Your task to perform on an android device: install app "WhatsApp Messenger" Image 0: 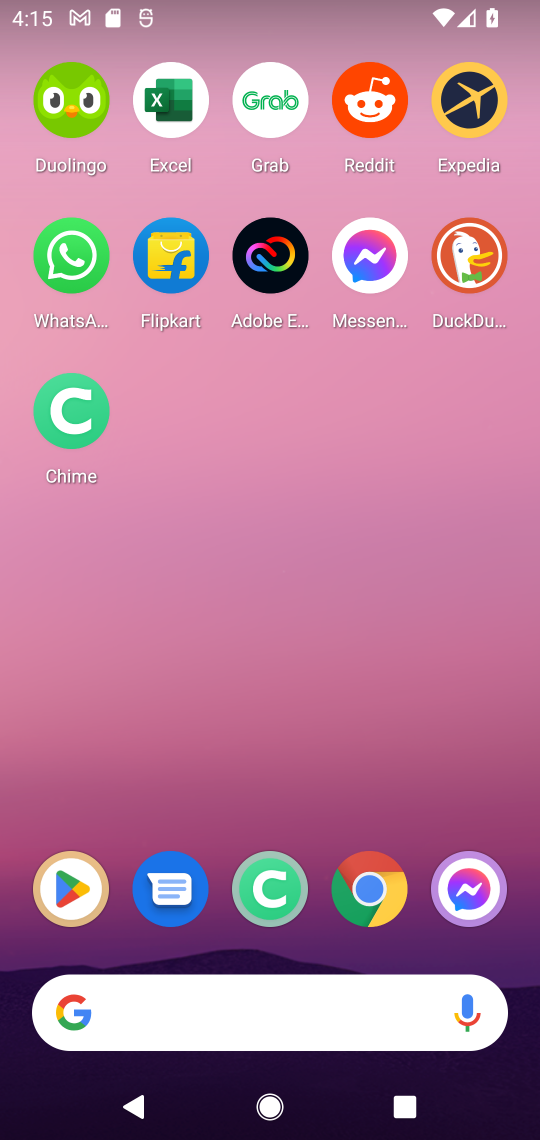
Step 0: press home button
Your task to perform on an android device: install app "WhatsApp Messenger" Image 1: 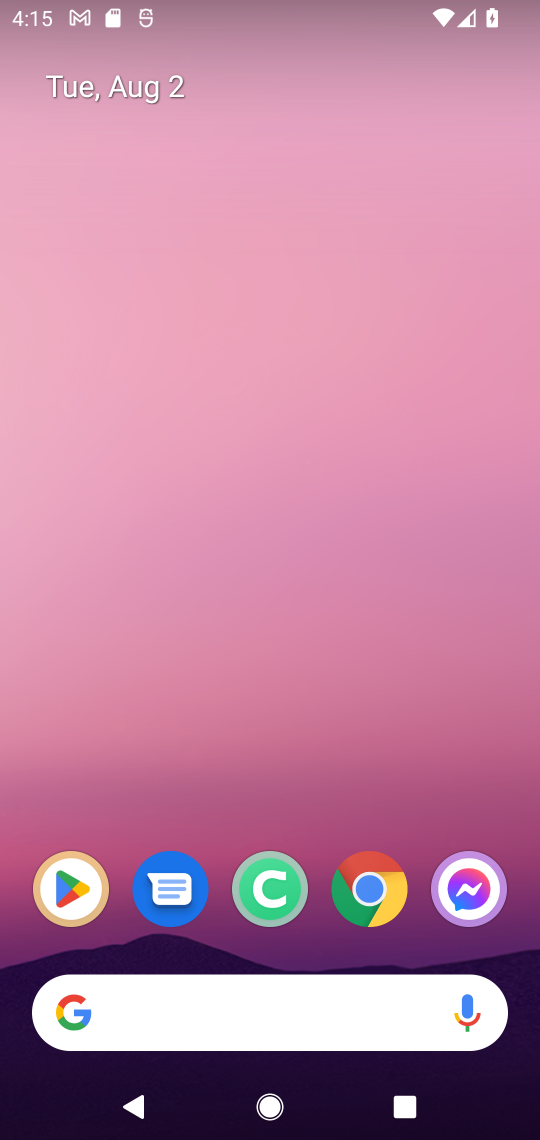
Step 1: drag from (408, 721) to (397, 81)
Your task to perform on an android device: install app "WhatsApp Messenger" Image 2: 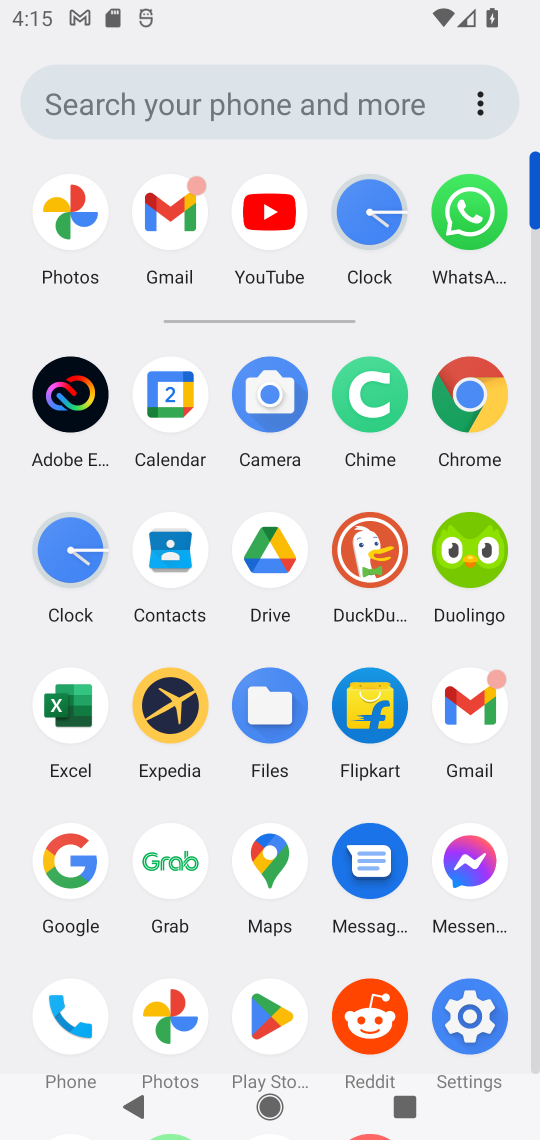
Step 2: click (270, 1012)
Your task to perform on an android device: install app "WhatsApp Messenger" Image 3: 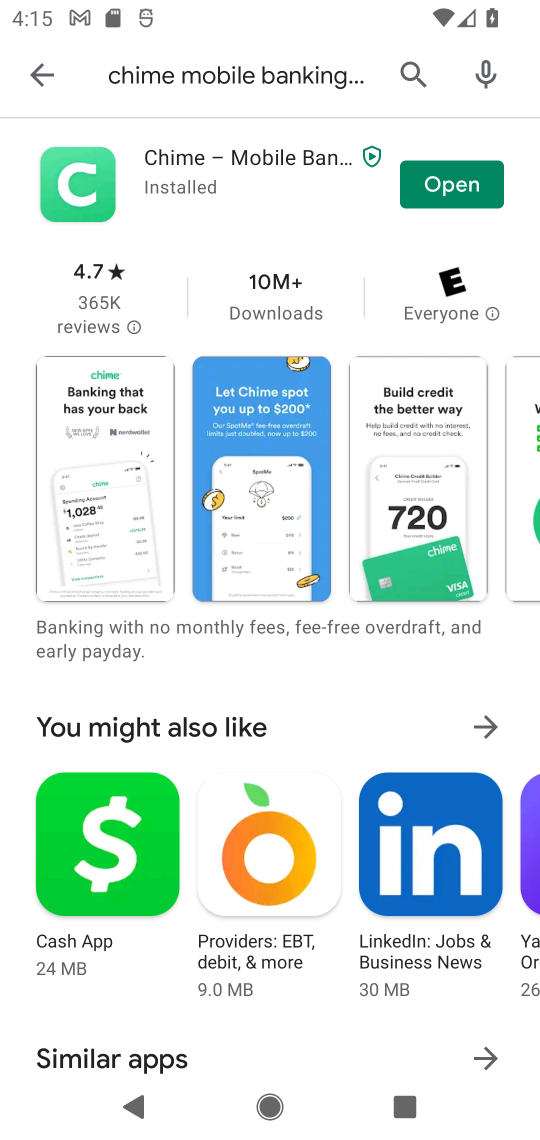
Step 3: click (416, 72)
Your task to perform on an android device: install app "WhatsApp Messenger" Image 4: 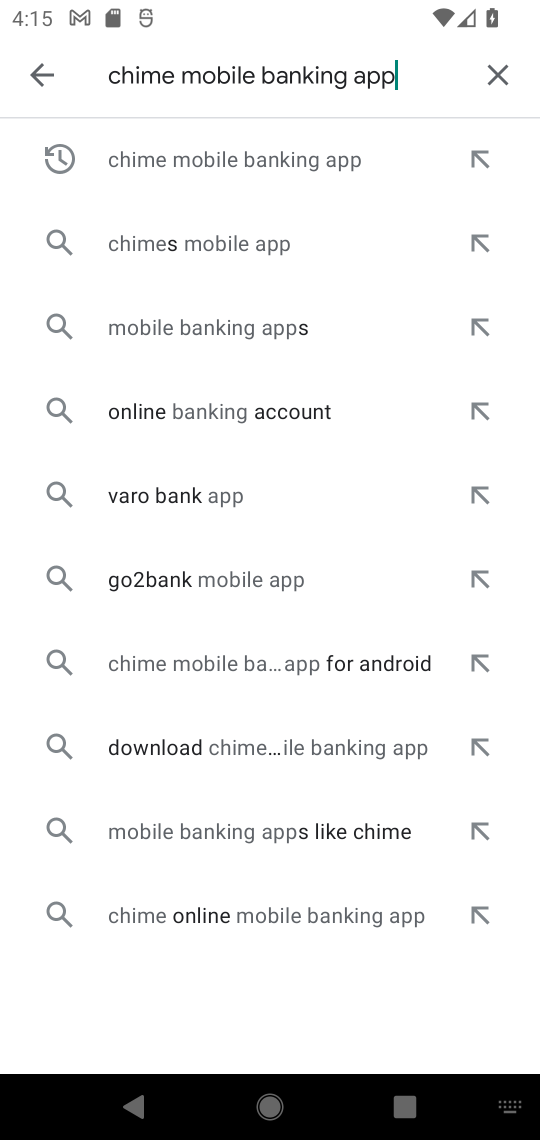
Step 4: click (492, 69)
Your task to perform on an android device: install app "WhatsApp Messenger" Image 5: 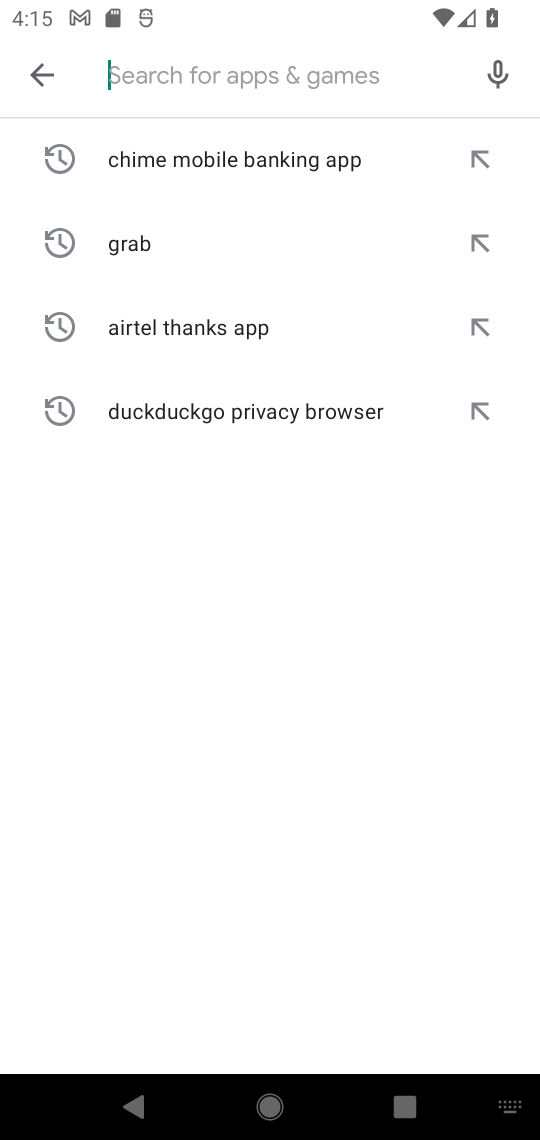
Step 5: click (351, 93)
Your task to perform on an android device: install app "WhatsApp Messenger" Image 6: 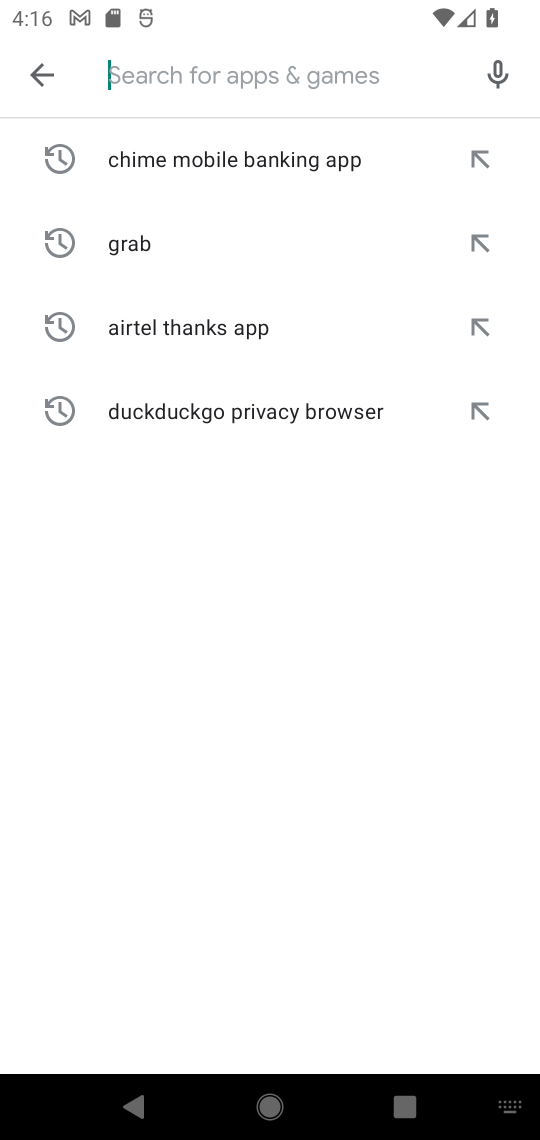
Step 6: type "whatsapp messenger"
Your task to perform on an android device: install app "WhatsApp Messenger" Image 7: 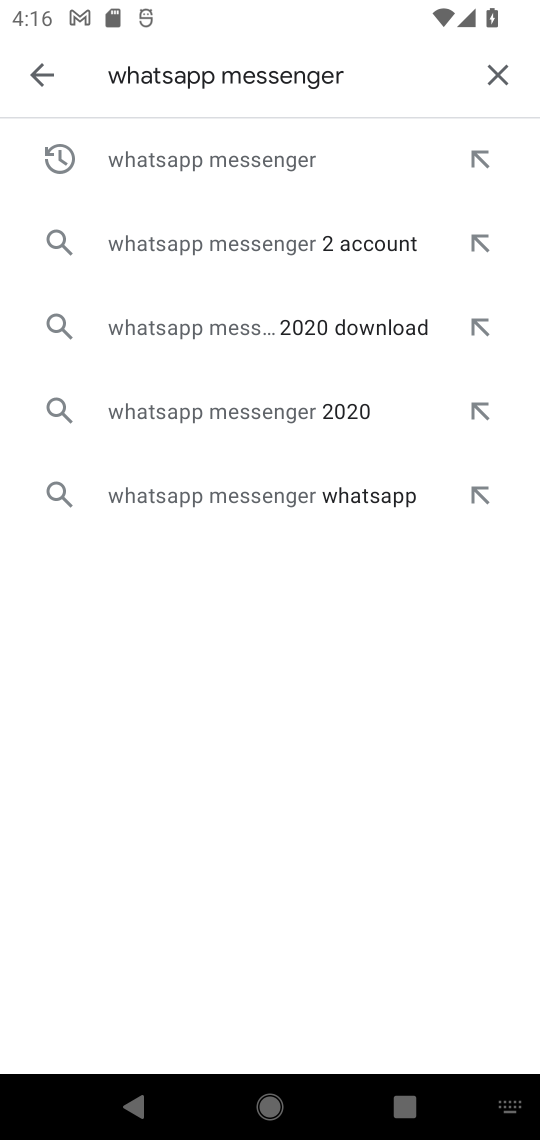
Step 7: click (303, 160)
Your task to perform on an android device: install app "WhatsApp Messenger" Image 8: 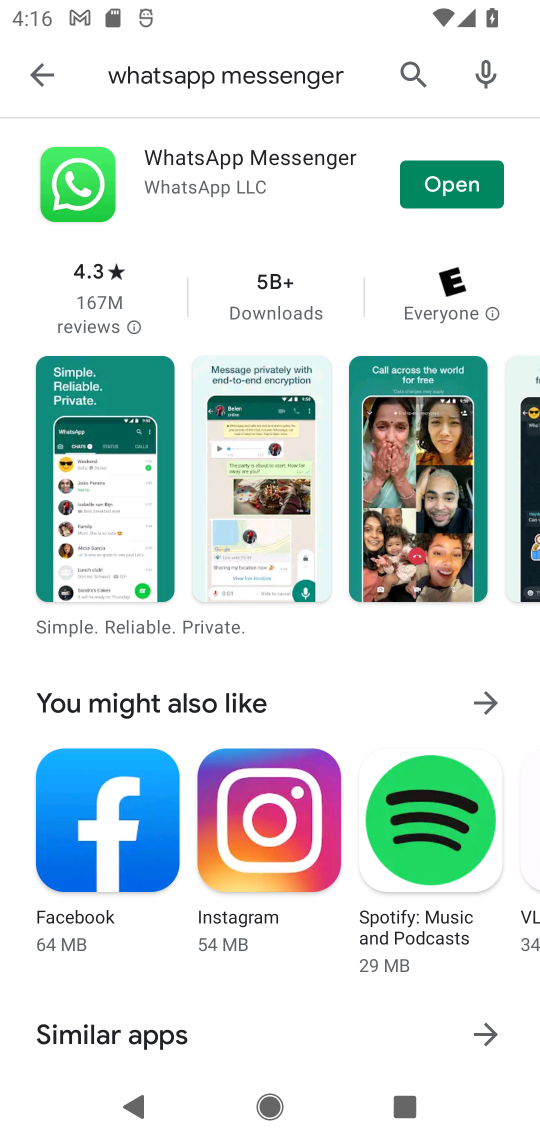
Step 8: task complete